Your task to perform on an android device: turn pop-ups off in chrome Image 0: 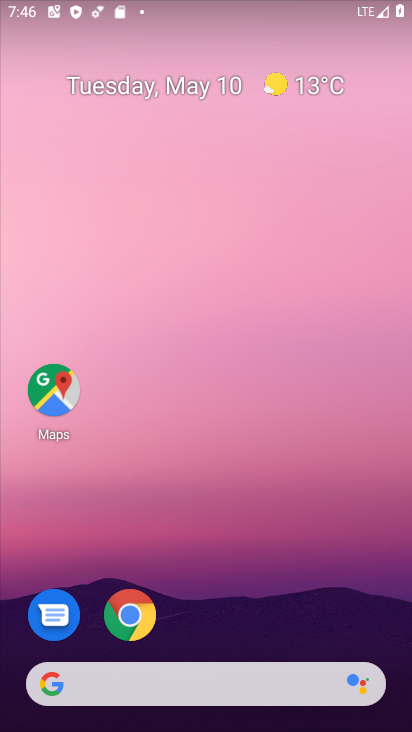
Step 0: drag from (303, 607) to (348, 122)
Your task to perform on an android device: turn pop-ups off in chrome Image 1: 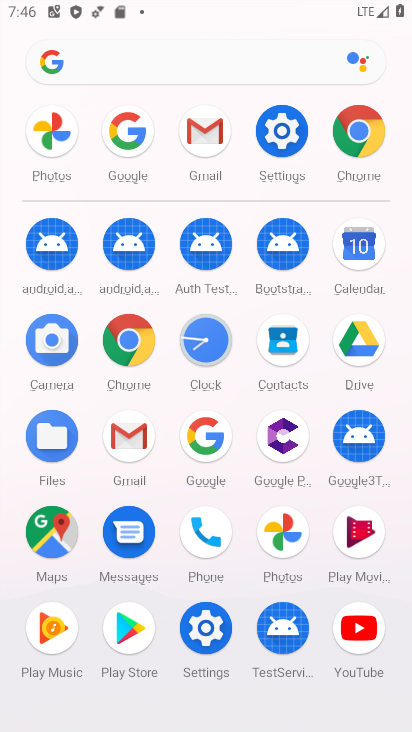
Step 1: click (364, 142)
Your task to perform on an android device: turn pop-ups off in chrome Image 2: 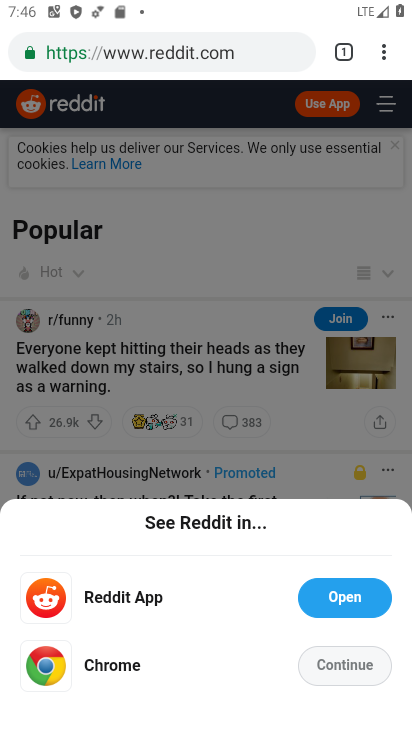
Step 2: drag from (379, 53) to (243, 631)
Your task to perform on an android device: turn pop-ups off in chrome Image 3: 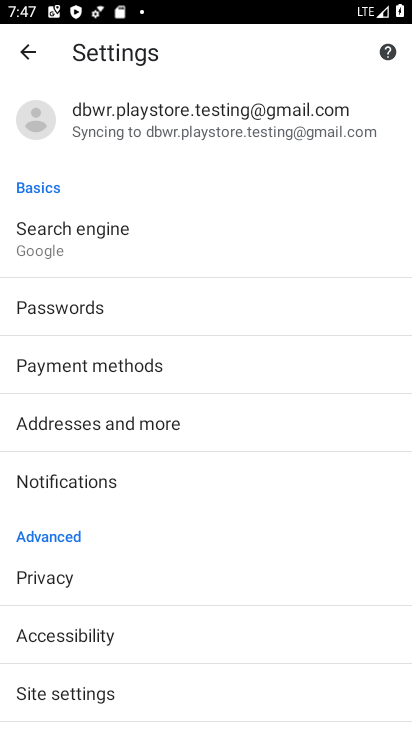
Step 3: drag from (240, 624) to (321, 146)
Your task to perform on an android device: turn pop-ups off in chrome Image 4: 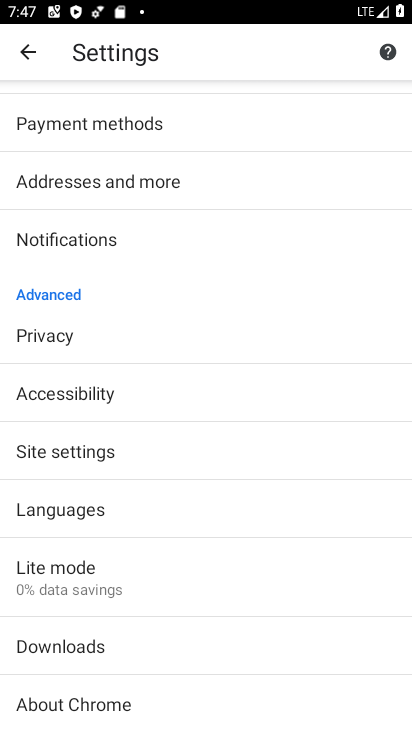
Step 4: click (63, 453)
Your task to perform on an android device: turn pop-ups off in chrome Image 5: 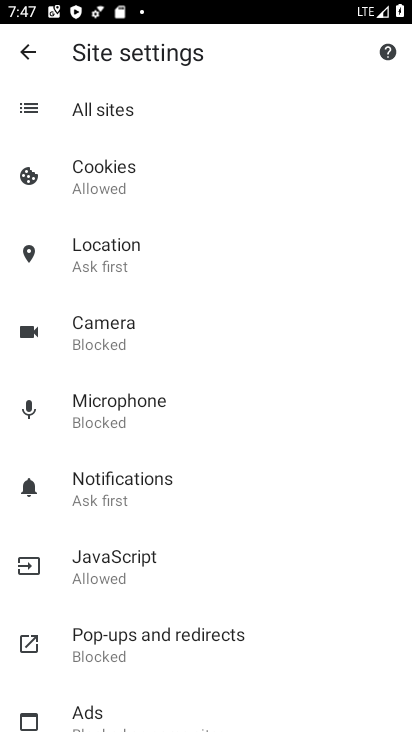
Step 5: click (111, 630)
Your task to perform on an android device: turn pop-ups off in chrome Image 6: 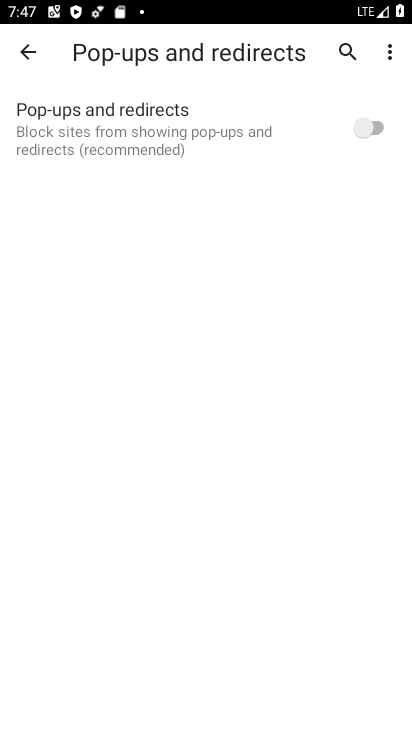
Step 6: task complete